Your task to perform on an android device: find photos in the google photos app Image 0: 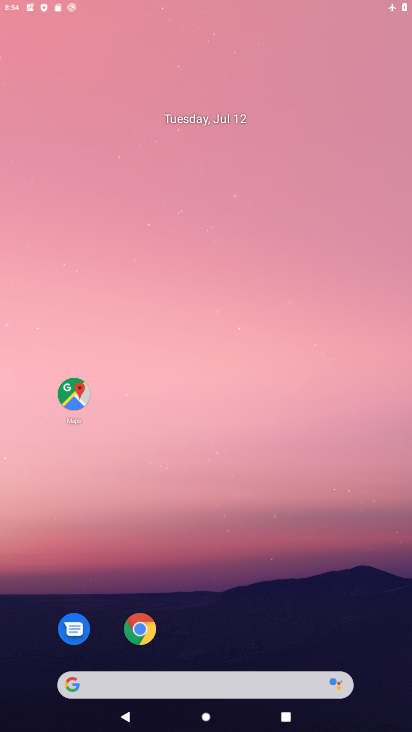
Step 0: click (288, 257)
Your task to perform on an android device: find photos in the google photos app Image 1: 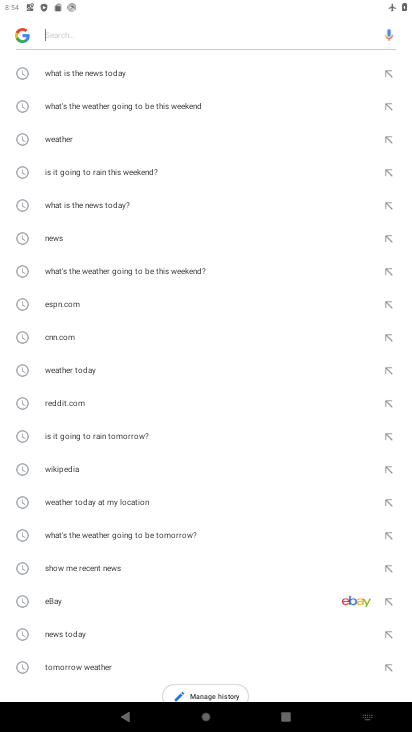
Step 1: press home button
Your task to perform on an android device: find photos in the google photos app Image 2: 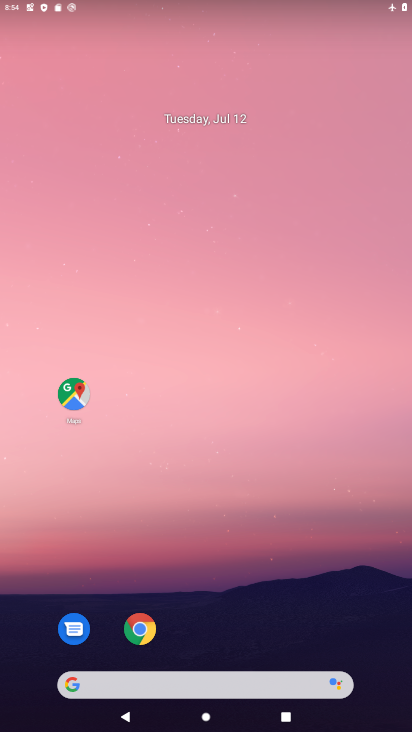
Step 2: drag from (245, 625) to (173, 231)
Your task to perform on an android device: find photos in the google photos app Image 3: 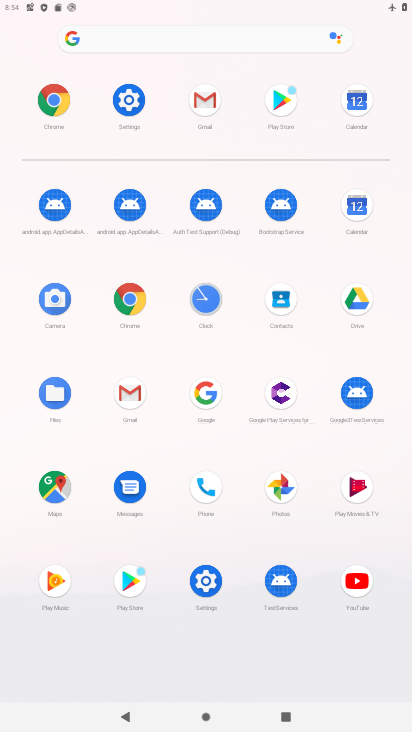
Step 3: click (287, 495)
Your task to perform on an android device: find photos in the google photos app Image 4: 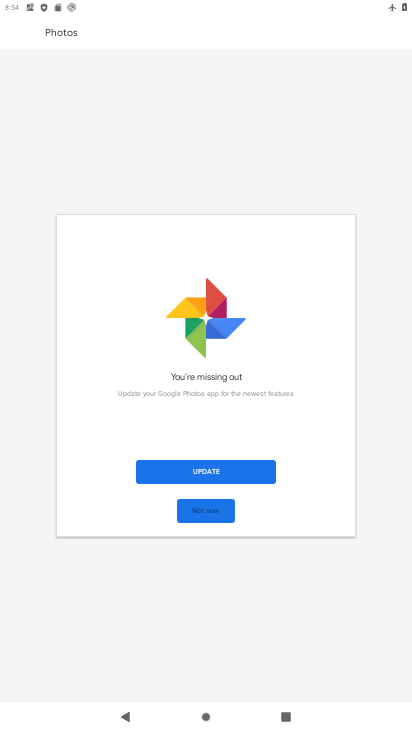
Step 4: click (215, 505)
Your task to perform on an android device: find photos in the google photos app Image 5: 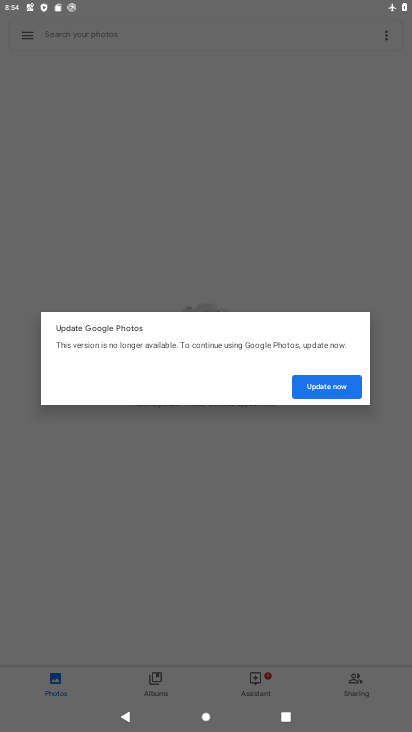
Step 5: click (318, 366)
Your task to perform on an android device: find photos in the google photos app Image 6: 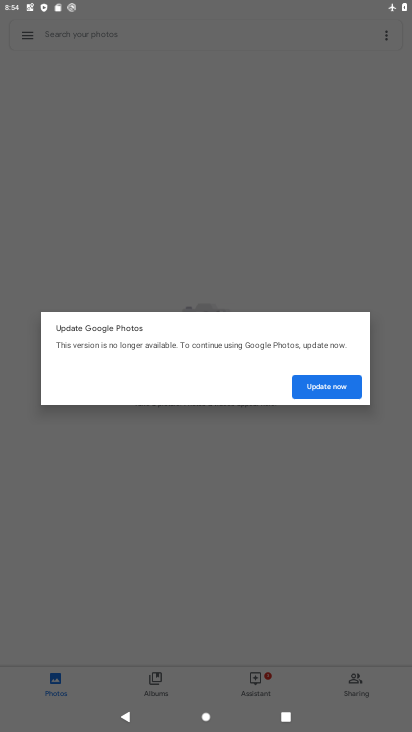
Step 6: click (322, 378)
Your task to perform on an android device: find photos in the google photos app Image 7: 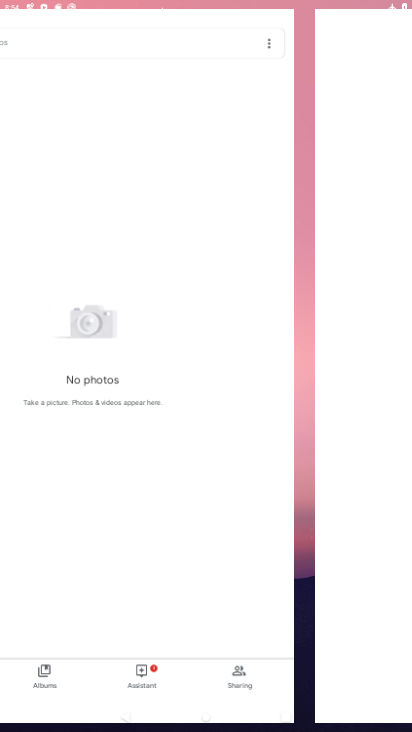
Step 7: press back button
Your task to perform on an android device: find photos in the google photos app Image 8: 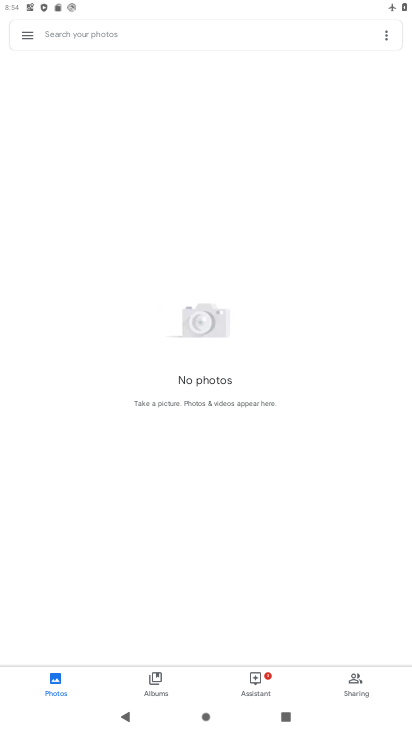
Step 8: click (163, 678)
Your task to perform on an android device: find photos in the google photos app Image 9: 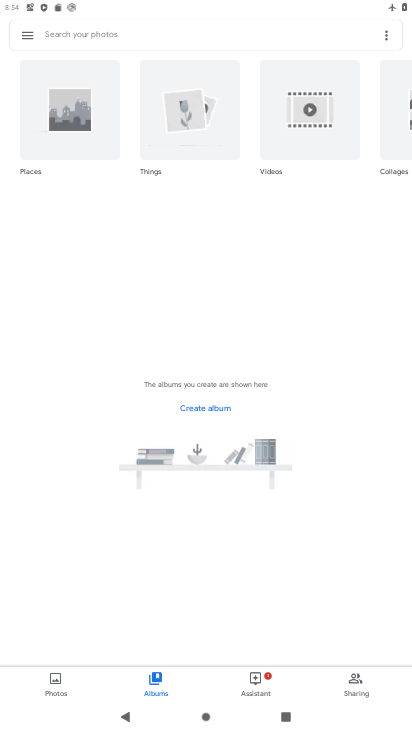
Step 9: task complete